Your task to perform on an android device: make emails show in primary in the gmail app Image 0: 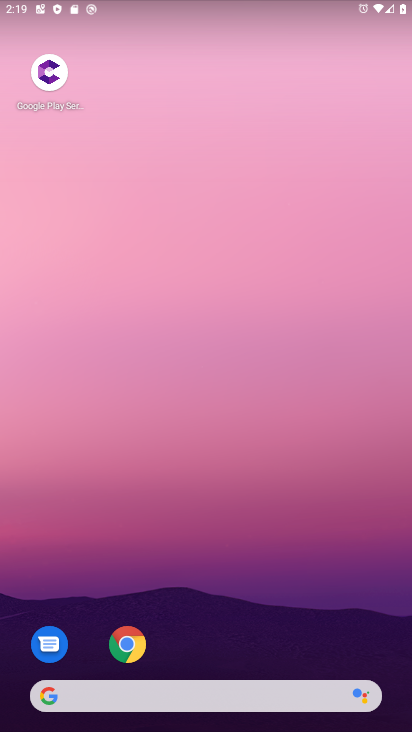
Step 0: drag from (290, 615) to (333, 219)
Your task to perform on an android device: make emails show in primary in the gmail app Image 1: 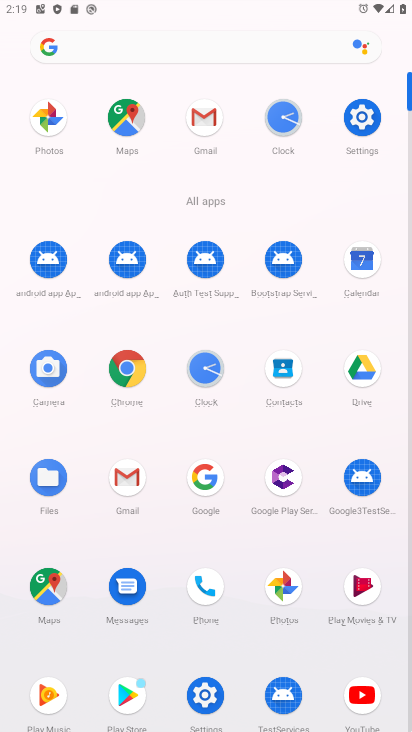
Step 1: click (203, 139)
Your task to perform on an android device: make emails show in primary in the gmail app Image 2: 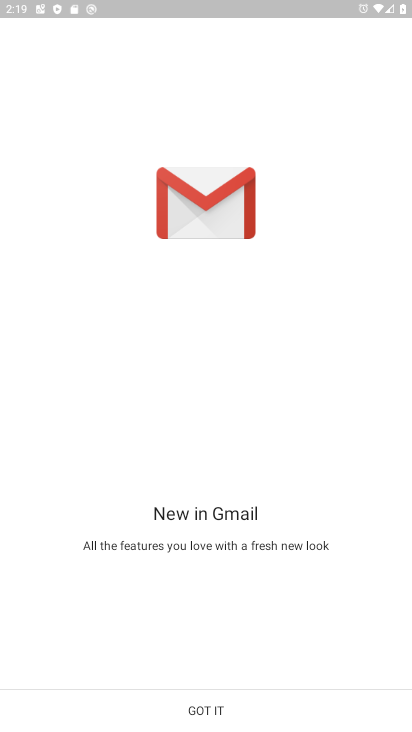
Step 2: click (201, 702)
Your task to perform on an android device: make emails show in primary in the gmail app Image 3: 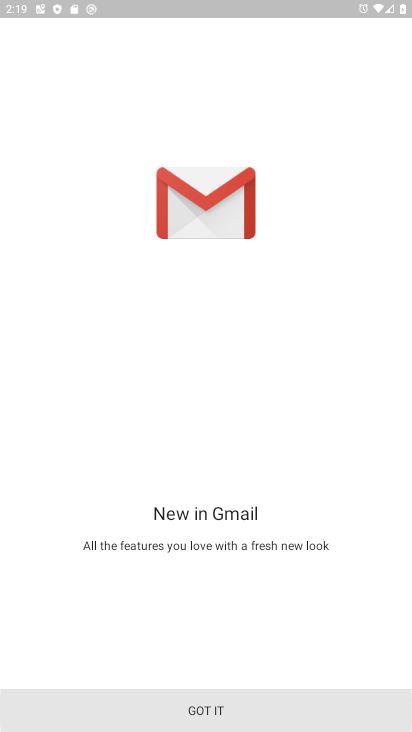
Step 3: click (201, 702)
Your task to perform on an android device: make emails show in primary in the gmail app Image 4: 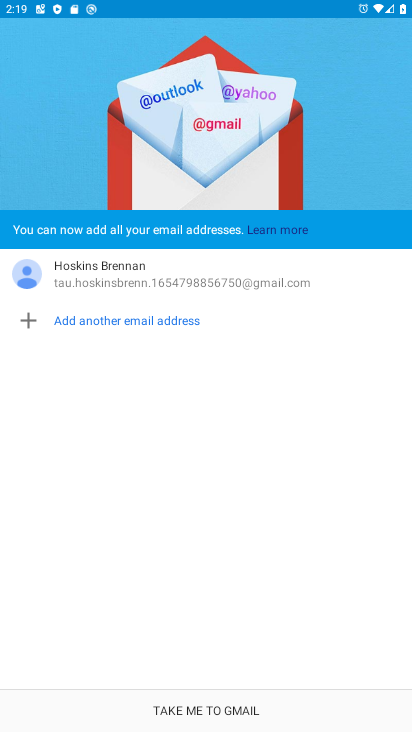
Step 4: click (198, 716)
Your task to perform on an android device: make emails show in primary in the gmail app Image 5: 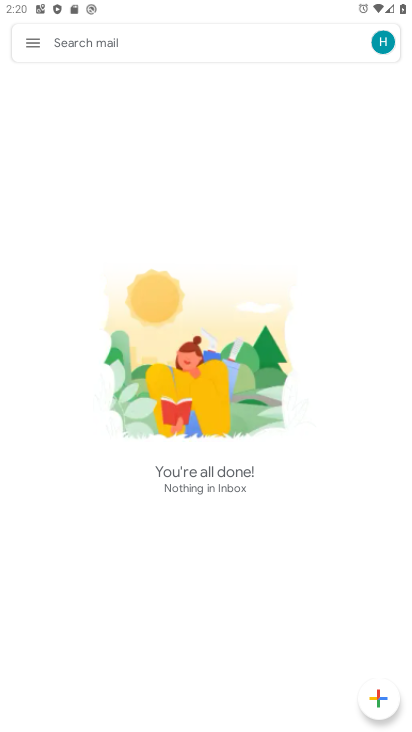
Step 5: task complete